Your task to perform on an android device: Search for pizza restaurants on Maps Image 0: 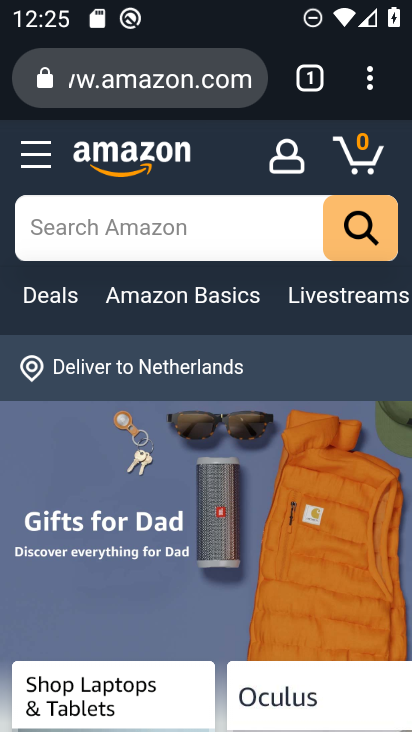
Step 0: press home button
Your task to perform on an android device: Search for pizza restaurants on Maps Image 1: 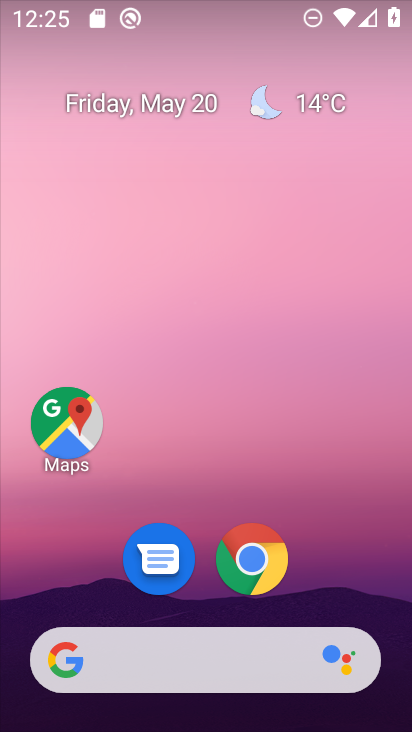
Step 1: click (177, 646)
Your task to perform on an android device: Search for pizza restaurants on Maps Image 2: 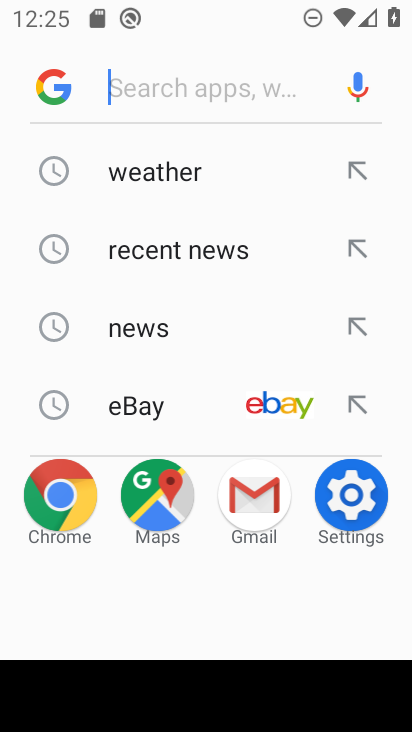
Step 2: press home button
Your task to perform on an android device: Search for pizza restaurants on Maps Image 3: 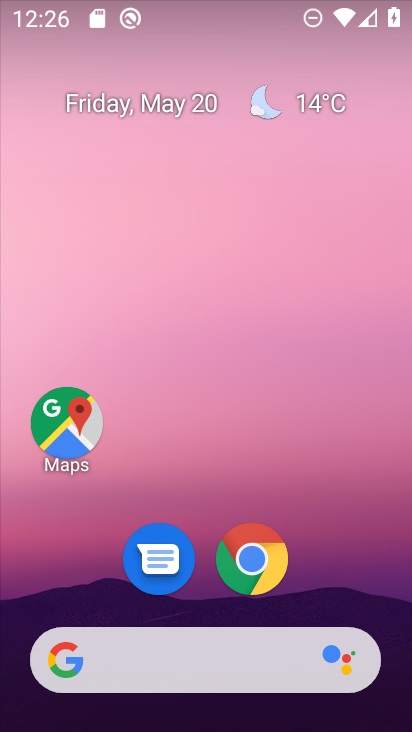
Step 3: click (76, 421)
Your task to perform on an android device: Search for pizza restaurants on Maps Image 4: 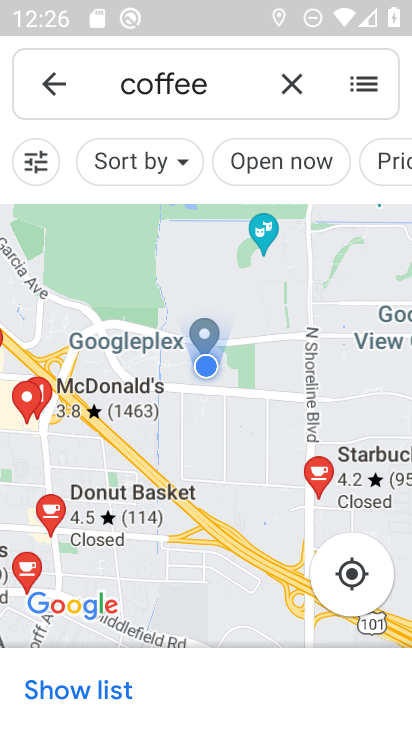
Step 4: click (286, 104)
Your task to perform on an android device: Search for pizza restaurants on Maps Image 5: 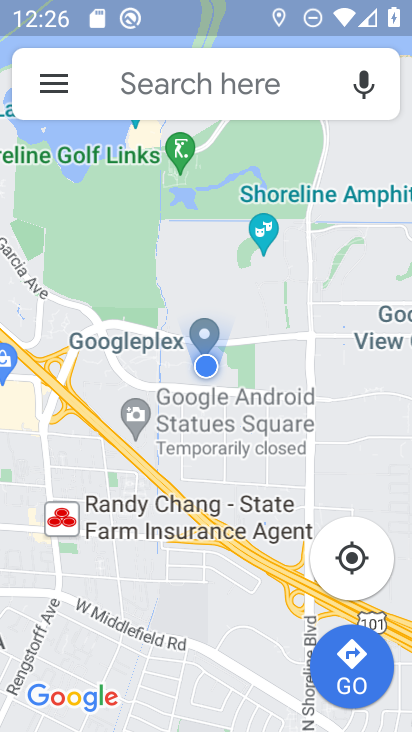
Step 5: click (286, 104)
Your task to perform on an android device: Search for pizza restaurants on Maps Image 6: 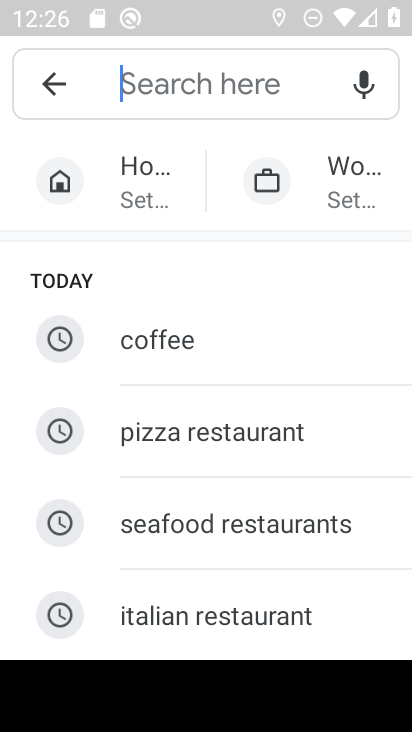
Step 6: click (203, 387)
Your task to perform on an android device: Search for pizza restaurants on Maps Image 7: 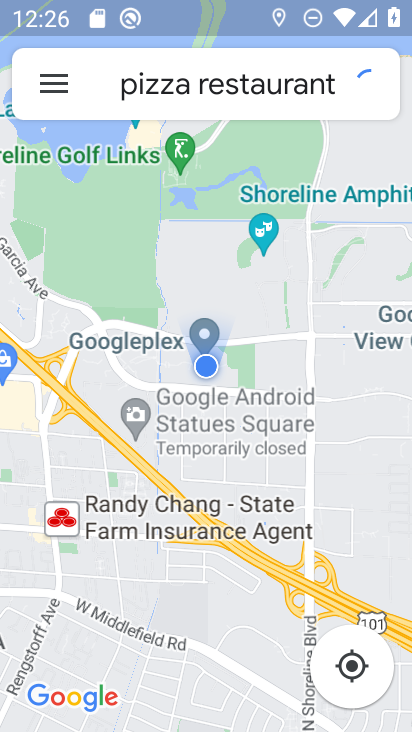
Step 7: task complete